Your task to perform on an android device: turn off translation in the chrome app Image 0: 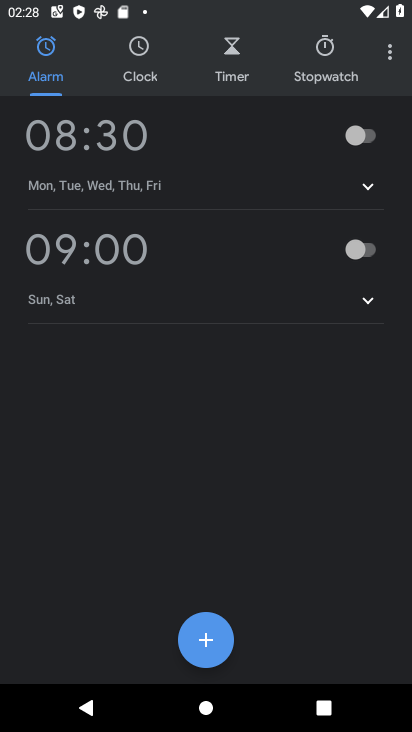
Step 0: press home button
Your task to perform on an android device: turn off translation in the chrome app Image 1: 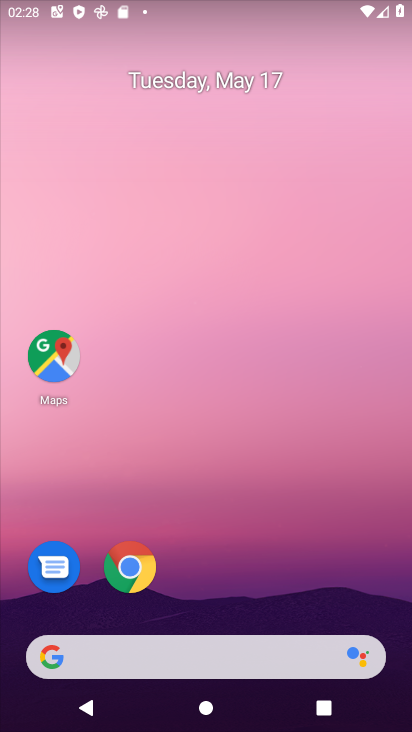
Step 1: click (131, 571)
Your task to perform on an android device: turn off translation in the chrome app Image 2: 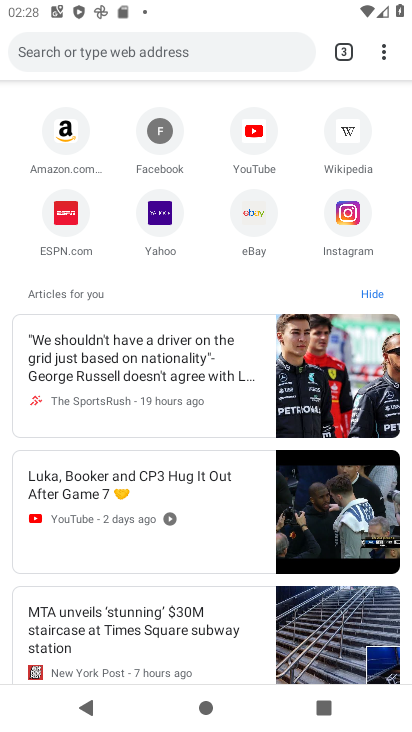
Step 2: click (381, 55)
Your task to perform on an android device: turn off translation in the chrome app Image 3: 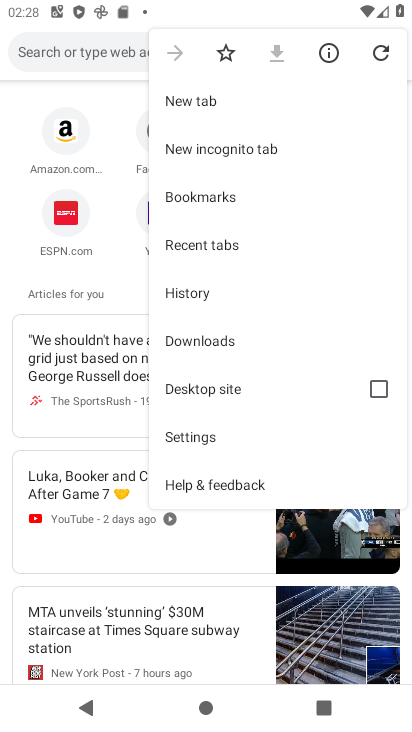
Step 3: click (189, 437)
Your task to perform on an android device: turn off translation in the chrome app Image 4: 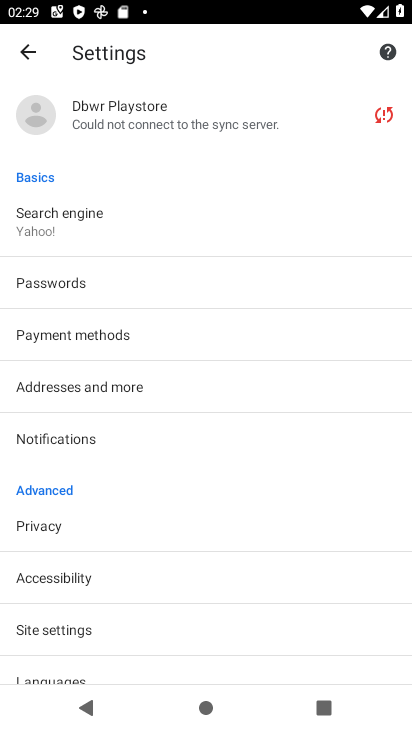
Step 4: drag from (93, 645) to (165, 301)
Your task to perform on an android device: turn off translation in the chrome app Image 5: 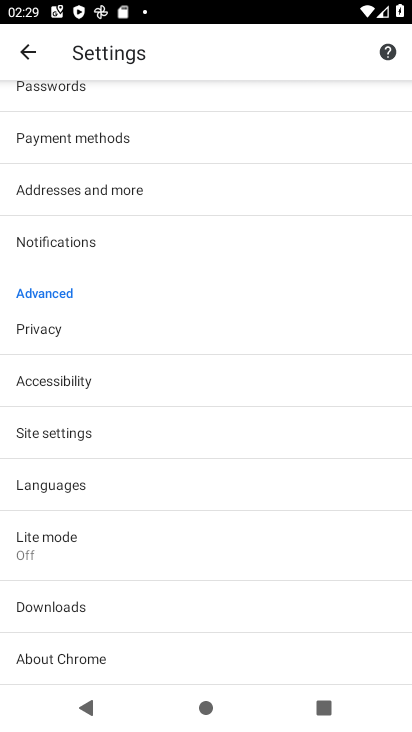
Step 5: click (61, 487)
Your task to perform on an android device: turn off translation in the chrome app Image 6: 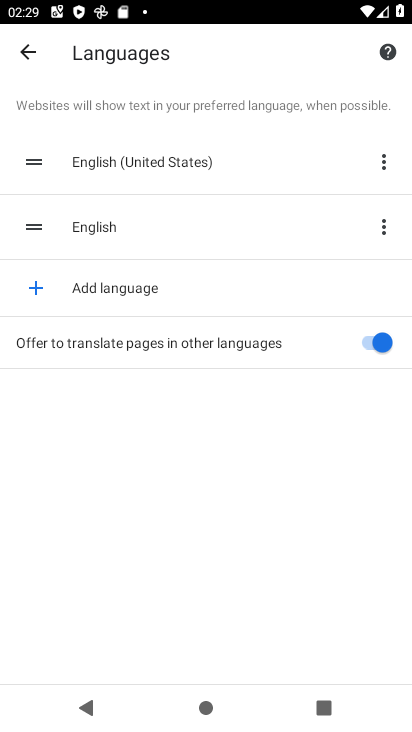
Step 6: click (368, 342)
Your task to perform on an android device: turn off translation in the chrome app Image 7: 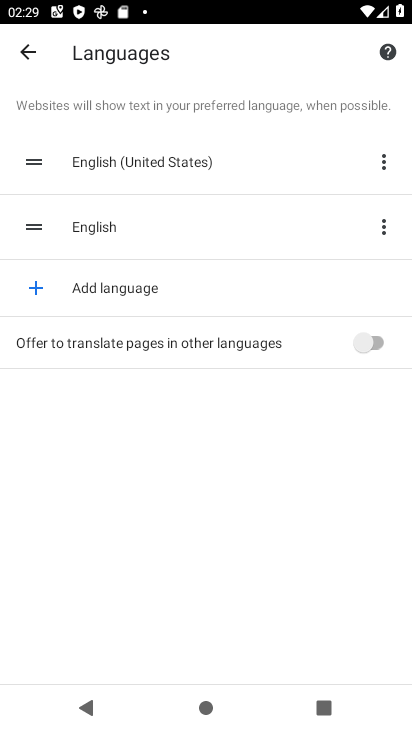
Step 7: task complete